Your task to perform on an android device: turn on location history Image 0: 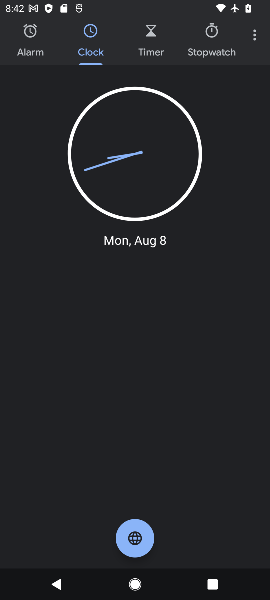
Step 0: drag from (132, 3) to (141, 269)
Your task to perform on an android device: turn on location history Image 1: 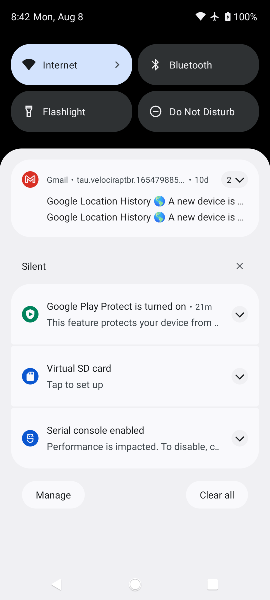
Step 1: drag from (108, 139) to (118, 386)
Your task to perform on an android device: turn on location history Image 2: 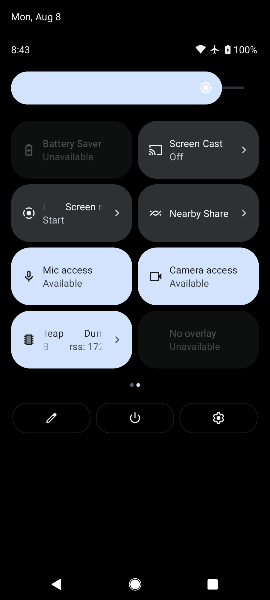
Step 2: drag from (8, 311) to (228, 324)
Your task to perform on an android device: turn on location history Image 3: 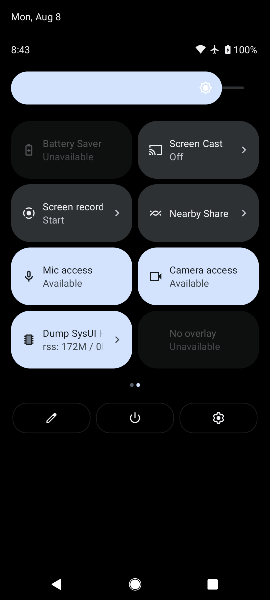
Step 3: drag from (5, 304) to (269, 314)
Your task to perform on an android device: turn on location history Image 4: 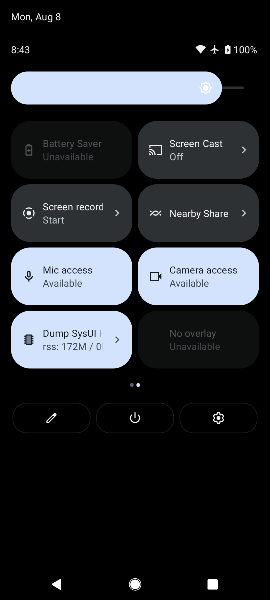
Step 4: click (220, 418)
Your task to perform on an android device: turn on location history Image 5: 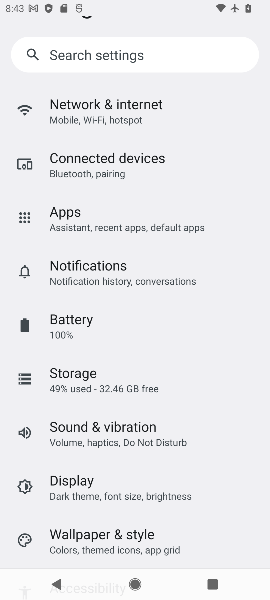
Step 5: drag from (117, 539) to (131, 254)
Your task to perform on an android device: turn on location history Image 6: 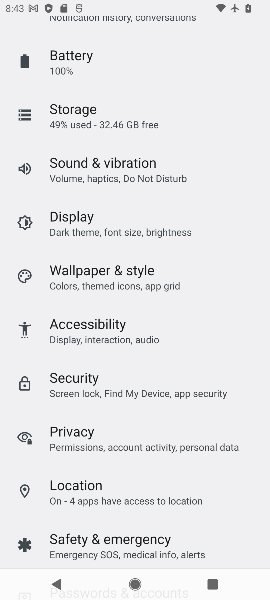
Step 6: click (112, 493)
Your task to perform on an android device: turn on location history Image 7: 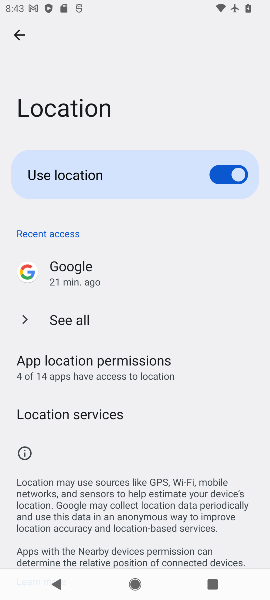
Step 7: click (56, 415)
Your task to perform on an android device: turn on location history Image 8: 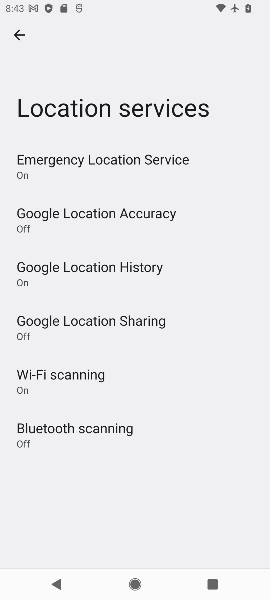
Step 8: click (86, 222)
Your task to perform on an android device: turn on location history Image 9: 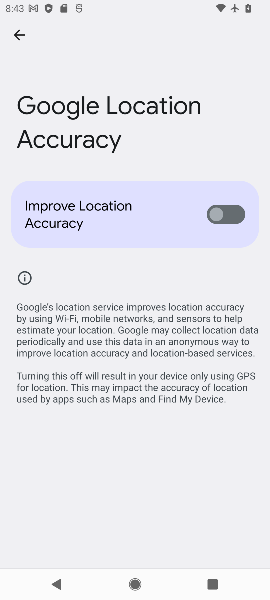
Step 9: click (19, 40)
Your task to perform on an android device: turn on location history Image 10: 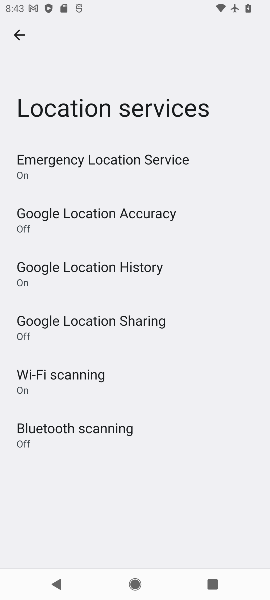
Step 10: click (120, 261)
Your task to perform on an android device: turn on location history Image 11: 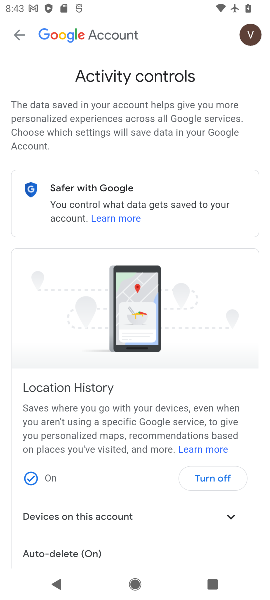
Step 11: task complete